Your task to perform on an android device: Is it going to rain tomorrow? Image 0: 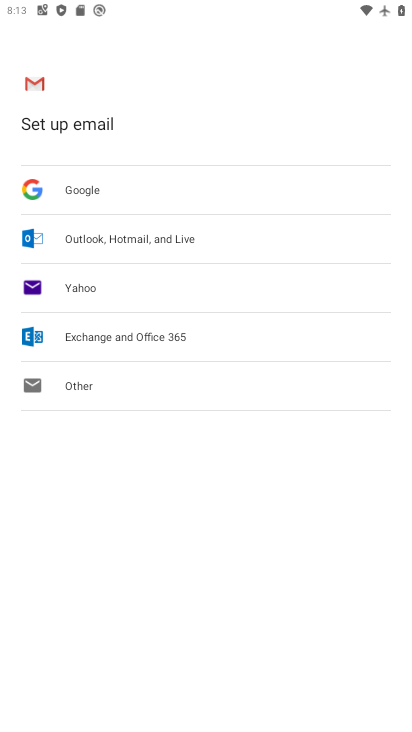
Step 0: press home button
Your task to perform on an android device: Is it going to rain tomorrow? Image 1: 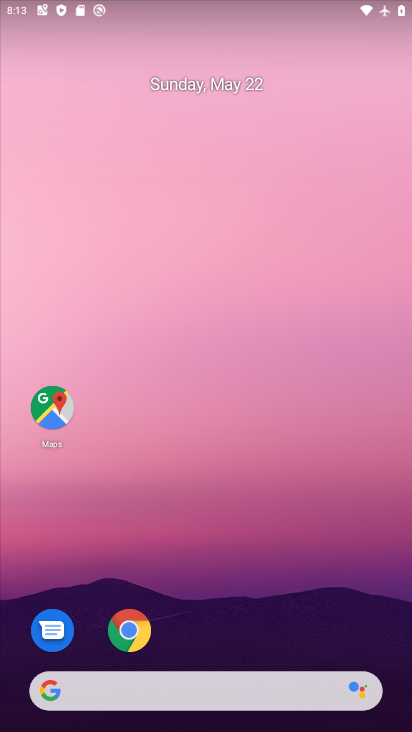
Step 1: drag from (3, 179) to (361, 254)
Your task to perform on an android device: Is it going to rain tomorrow? Image 2: 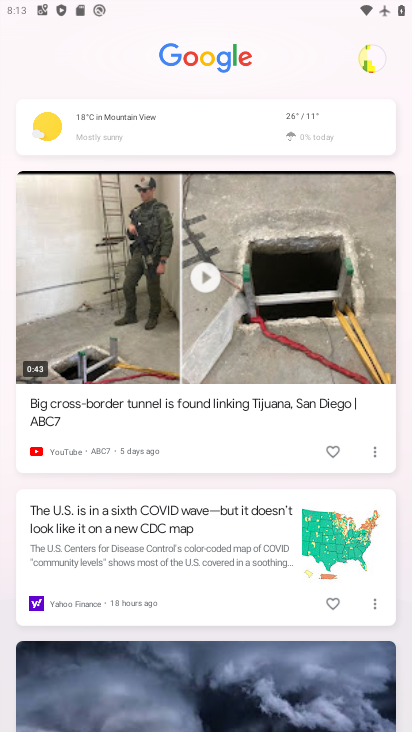
Step 2: click (308, 129)
Your task to perform on an android device: Is it going to rain tomorrow? Image 3: 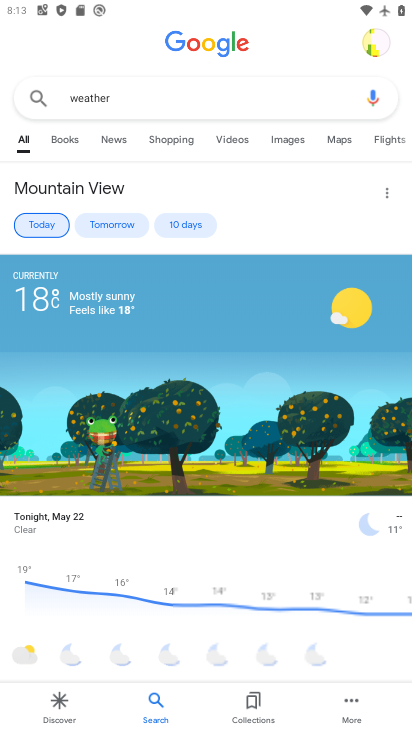
Step 3: click (118, 220)
Your task to perform on an android device: Is it going to rain tomorrow? Image 4: 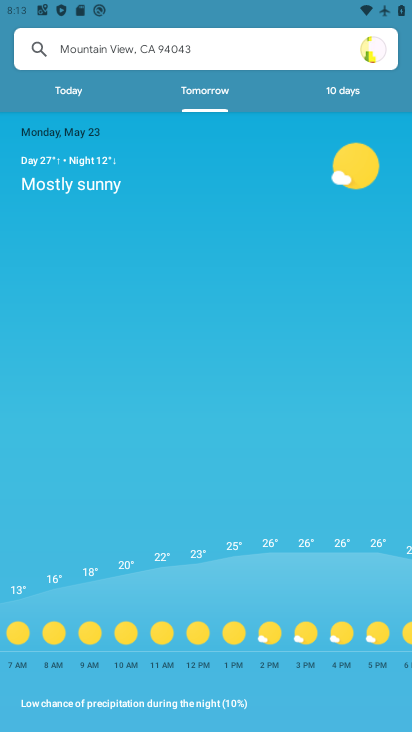
Step 4: task complete